Your task to perform on an android device: snooze an email in the gmail app Image 0: 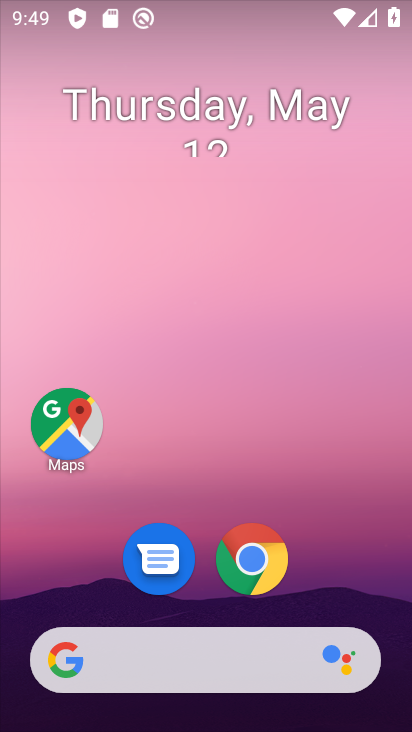
Step 0: drag from (184, 585) to (207, 174)
Your task to perform on an android device: snooze an email in the gmail app Image 1: 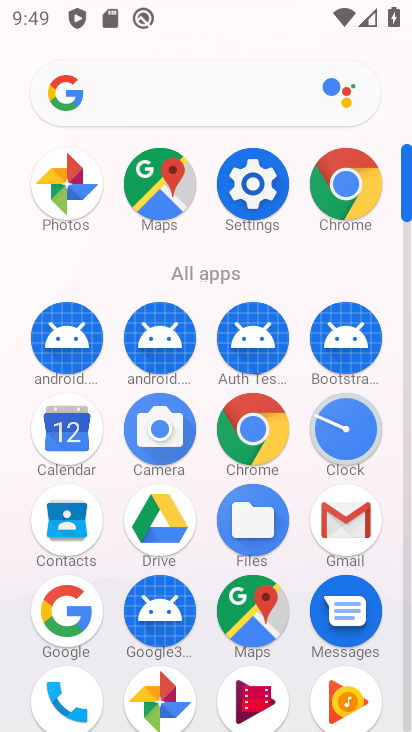
Step 1: click (327, 520)
Your task to perform on an android device: snooze an email in the gmail app Image 2: 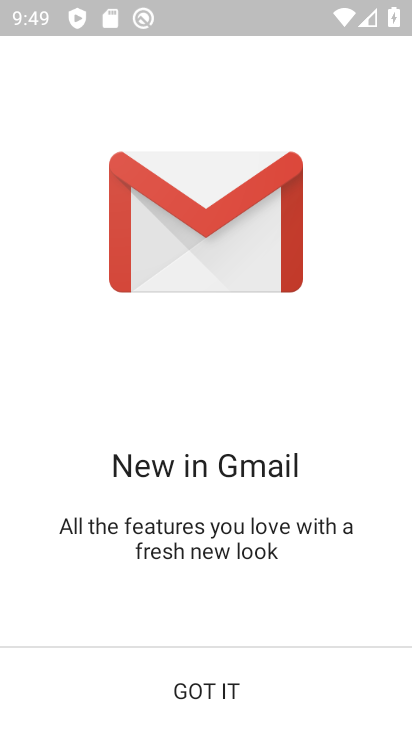
Step 2: click (188, 673)
Your task to perform on an android device: snooze an email in the gmail app Image 3: 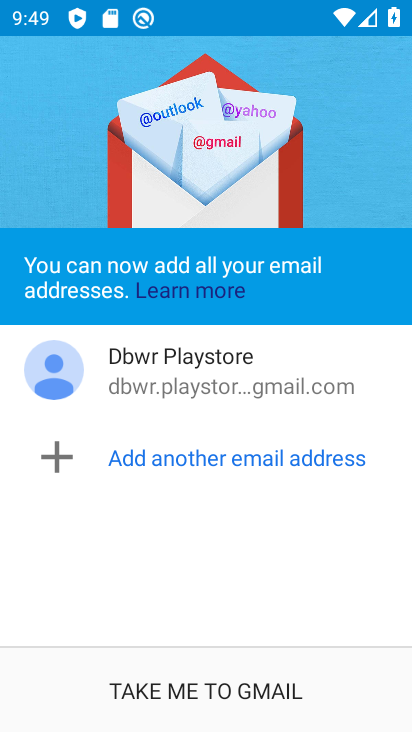
Step 3: click (188, 676)
Your task to perform on an android device: snooze an email in the gmail app Image 4: 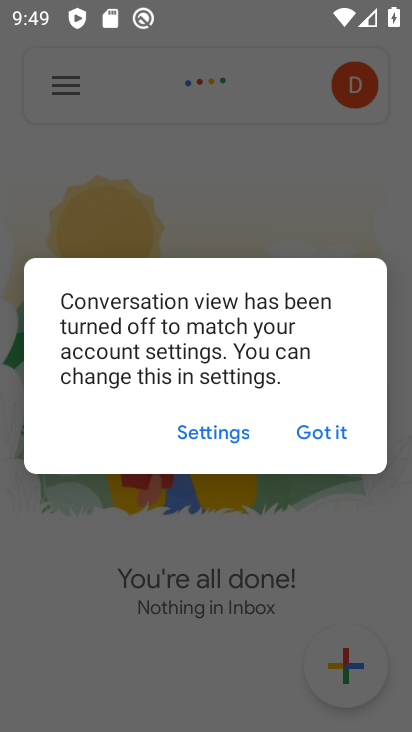
Step 4: click (317, 428)
Your task to perform on an android device: snooze an email in the gmail app Image 5: 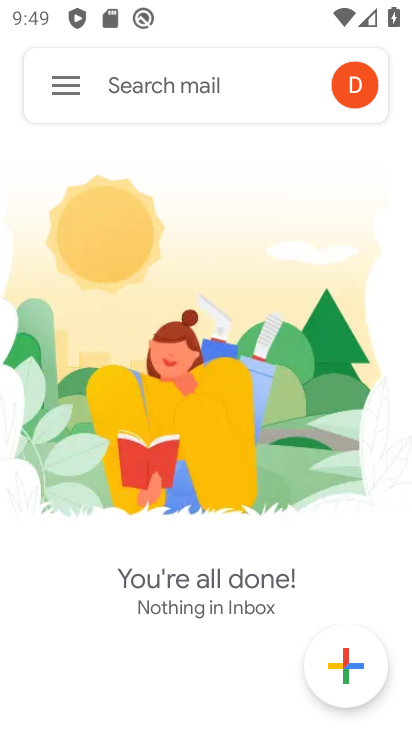
Step 5: click (62, 81)
Your task to perform on an android device: snooze an email in the gmail app Image 6: 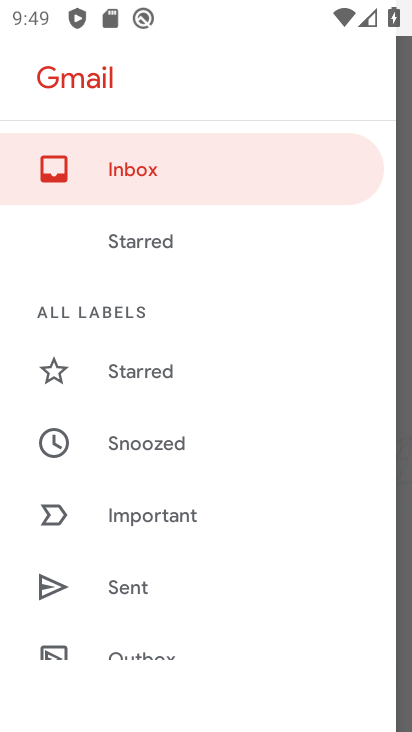
Step 6: drag from (135, 586) to (186, 240)
Your task to perform on an android device: snooze an email in the gmail app Image 7: 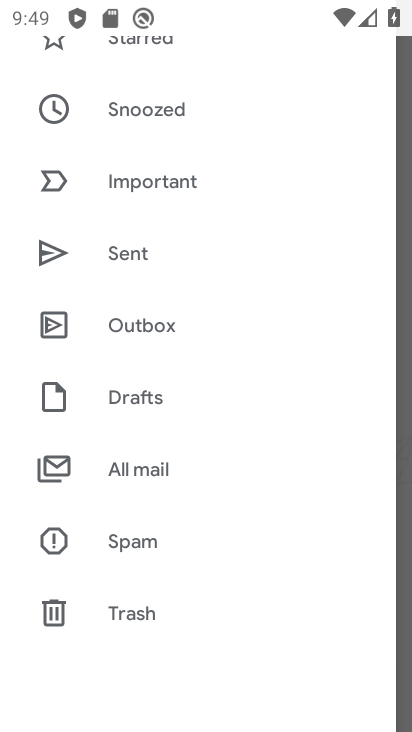
Step 7: click (140, 463)
Your task to perform on an android device: snooze an email in the gmail app Image 8: 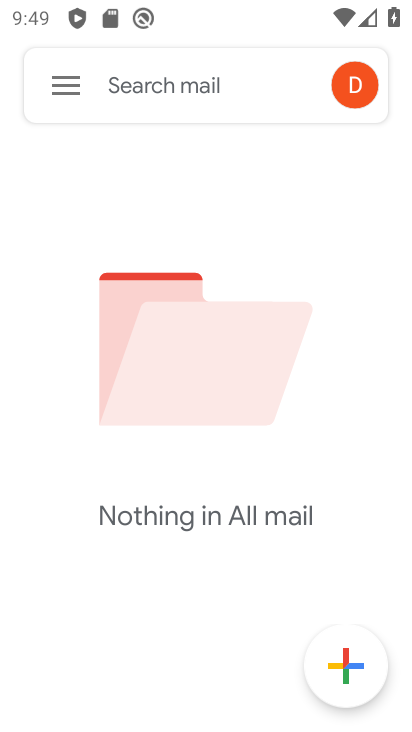
Step 8: task complete